Your task to perform on an android device: When is my next meeting? Image 0: 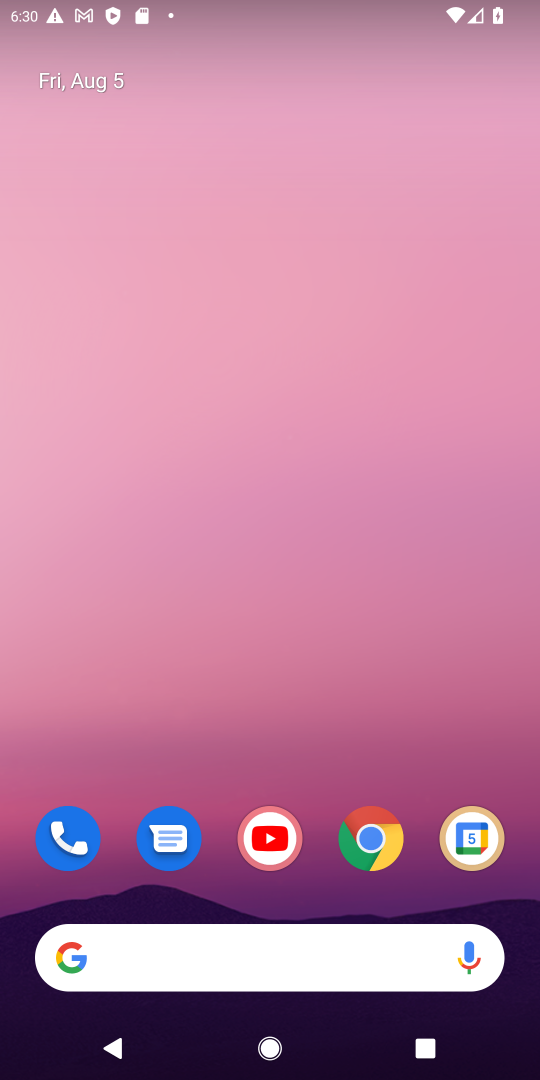
Step 0: press home button
Your task to perform on an android device: When is my next meeting? Image 1: 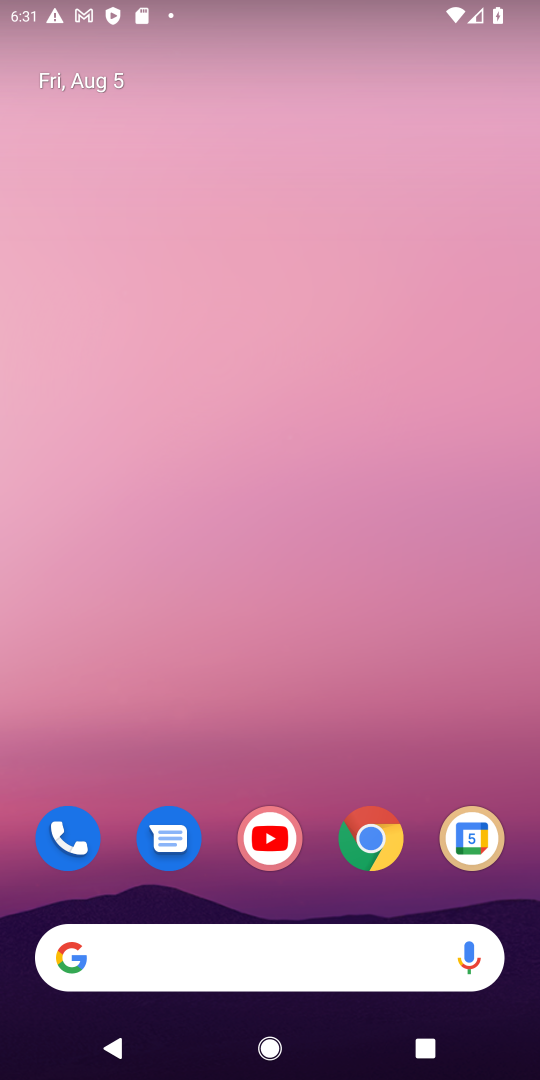
Step 1: drag from (206, 856) to (188, 78)
Your task to perform on an android device: When is my next meeting? Image 2: 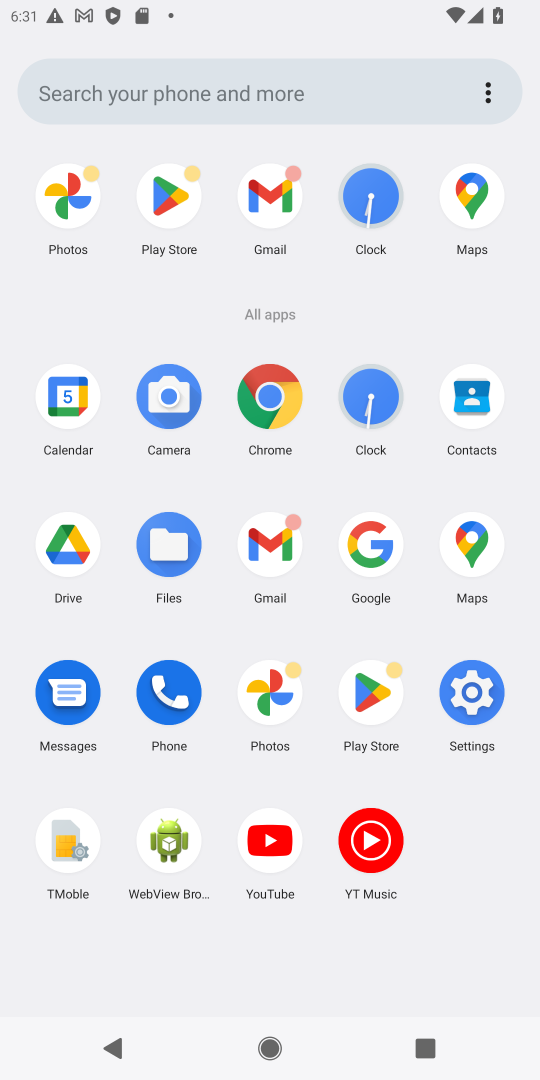
Step 2: click (72, 403)
Your task to perform on an android device: When is my next meeting? Image 3: 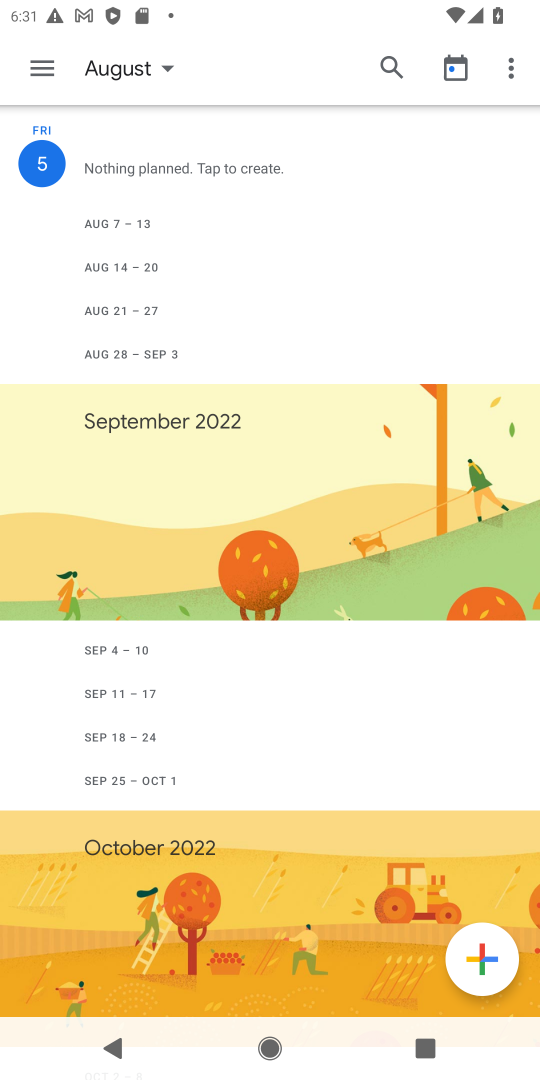
Step 3: click (37, 68)
Your task to perform on an android device: When is my next meeting? Image 4: 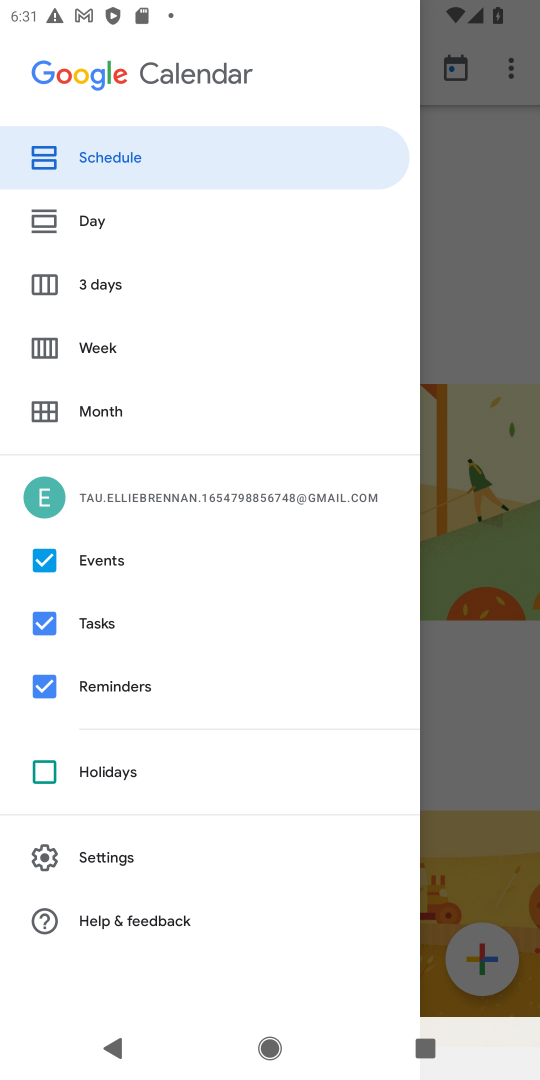
Step 4: click (144, 155)
Your task to perform on an android device: When is my next meeting? Image 5: 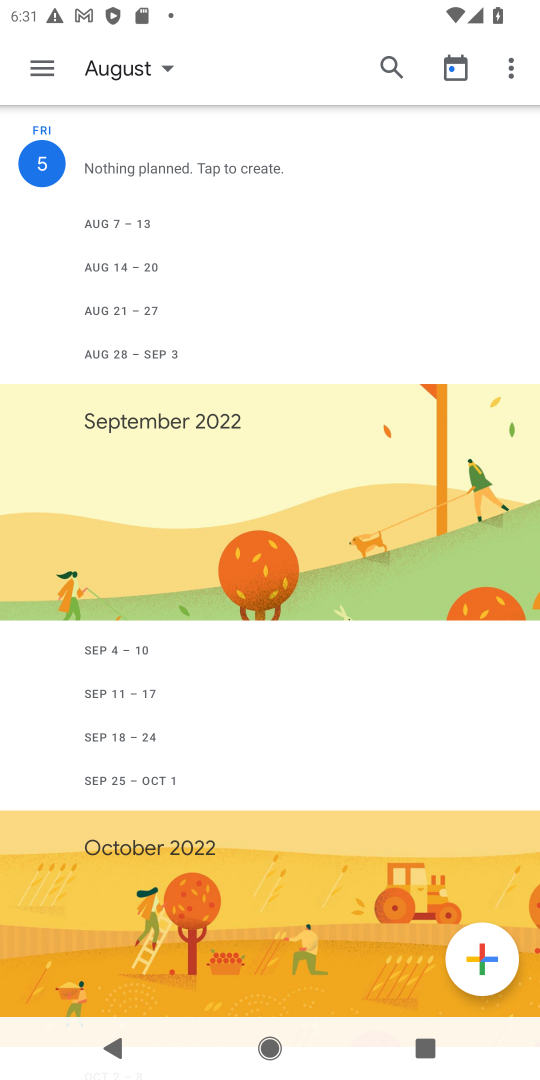
Step 5: task complete